Your task to perform on an android device: What's the weather? Image 0: 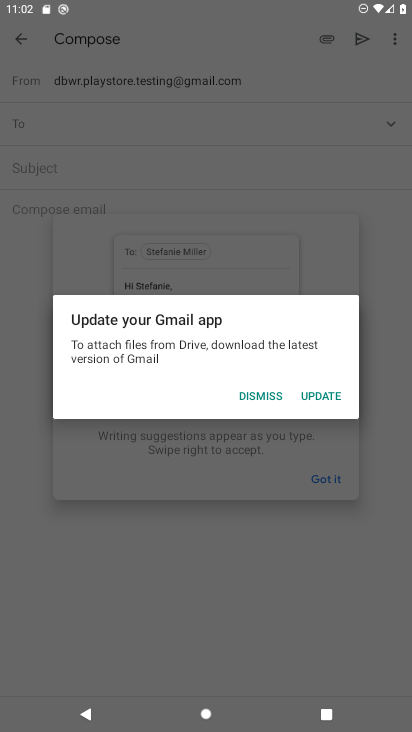
Step 0: press home button
Your task to perform on an android device: What's the weather? Image 1: 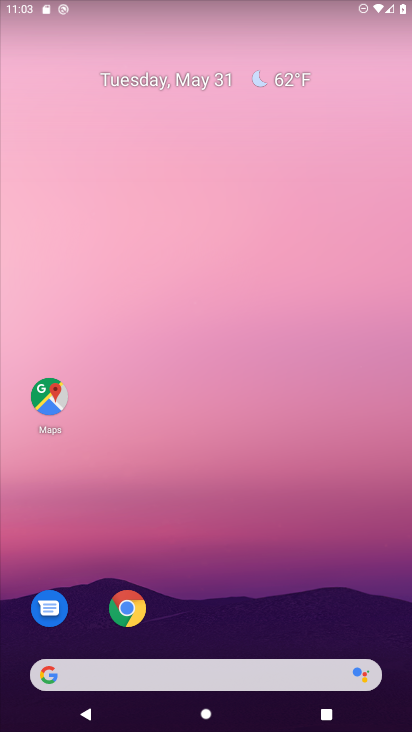
Step 1: drag from (372, 590) to (353, 132)
Your task to perform on an android device: What's the weather? Image 2: 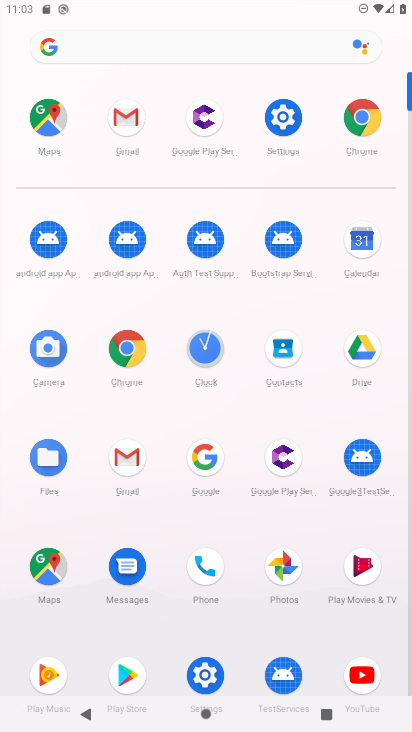
Step 2: click (344, 115)
Your task to perform on an android device: What's the weather? Image 3: 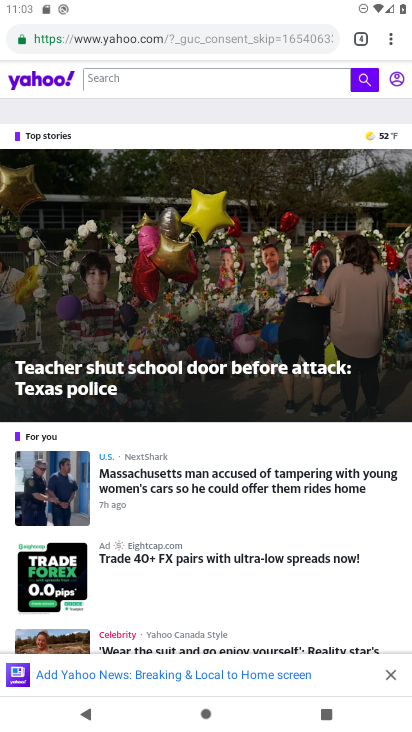
Step 3: click (198, 39)
Your task to perform on an android device: What's the weather? Image 4: 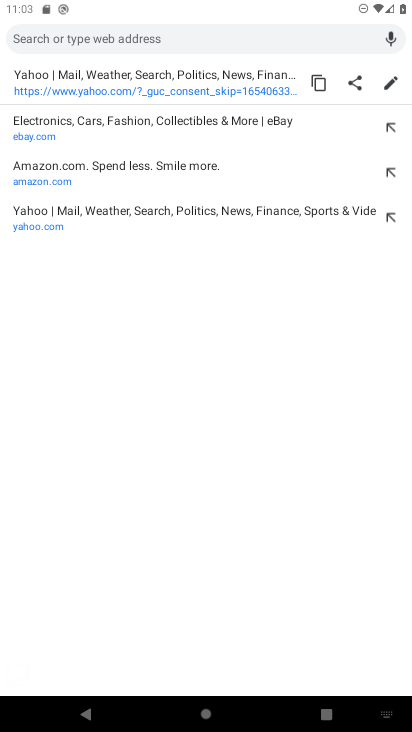
Step 4: type "what's the weather"
Your task to perform on an android device: What's the weather? Image 5: 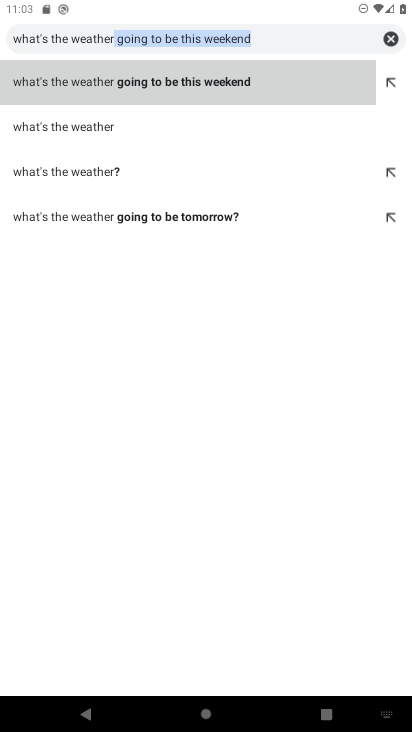
Step 5: click (163, 84)
Your task to perform on an android device: What's the weather? Image 6: 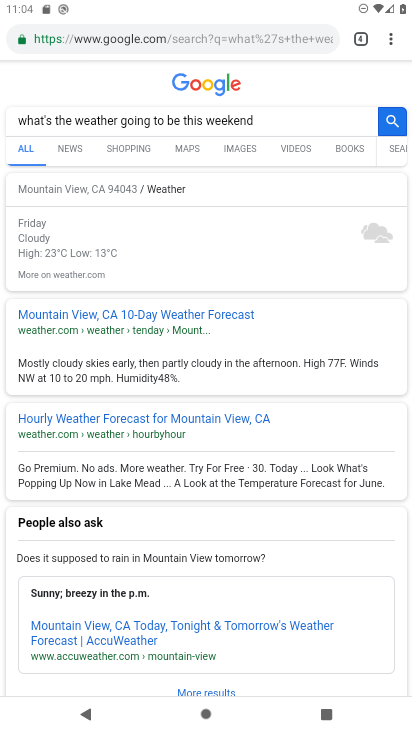
Step 6: task complete